Your task to perform on an android device: check google app version Image 0: 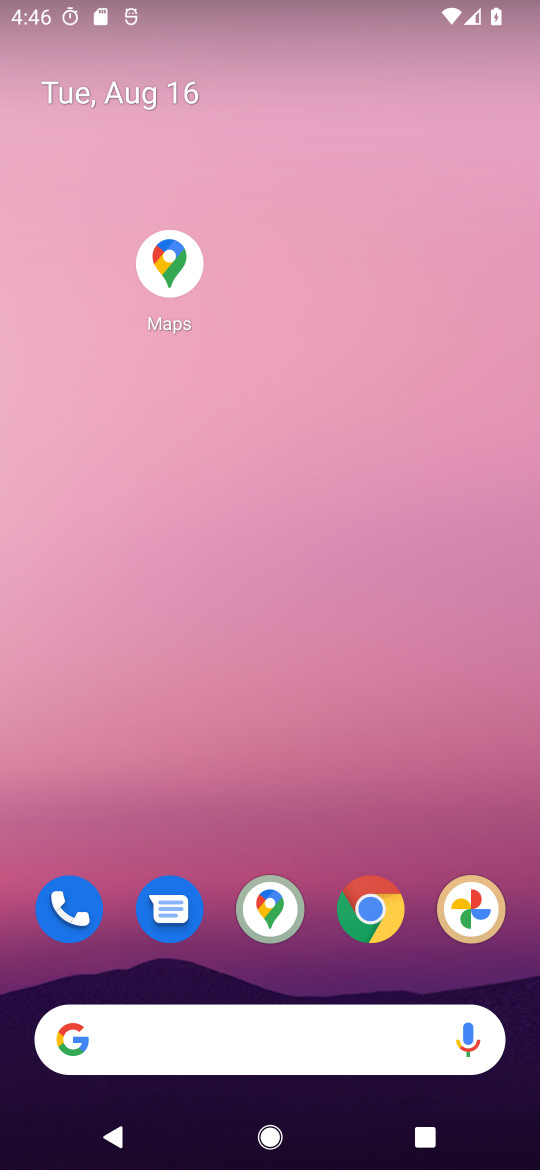
Step 0: drag from (237, 763) to (188, 81)
Your task to perform on an android device: check google app version Image 1: 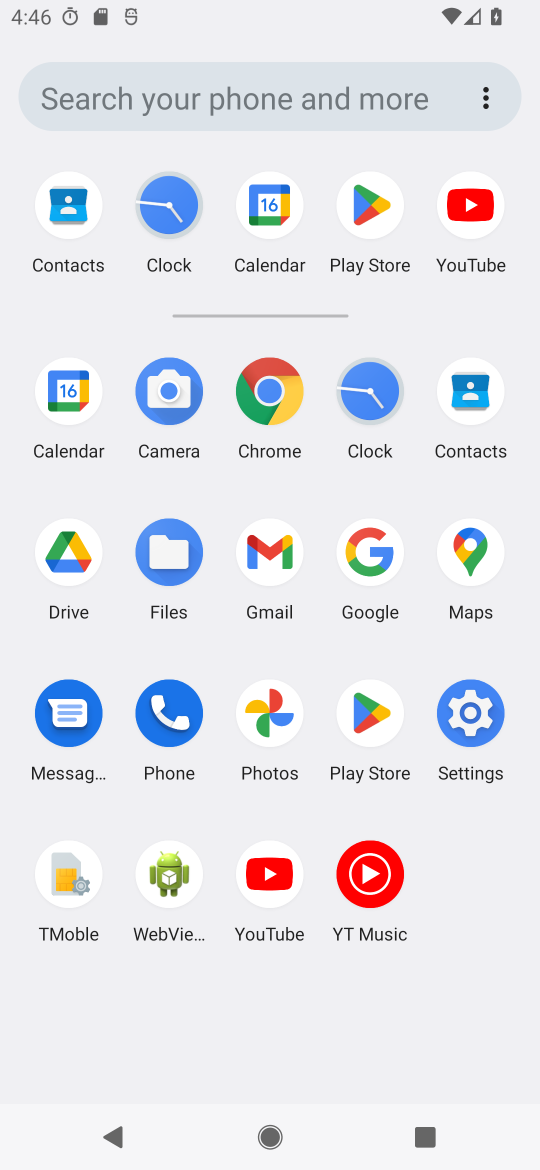
Step 1: click (377, 586)
Your task to perform on an android device: check google app version Image 2: 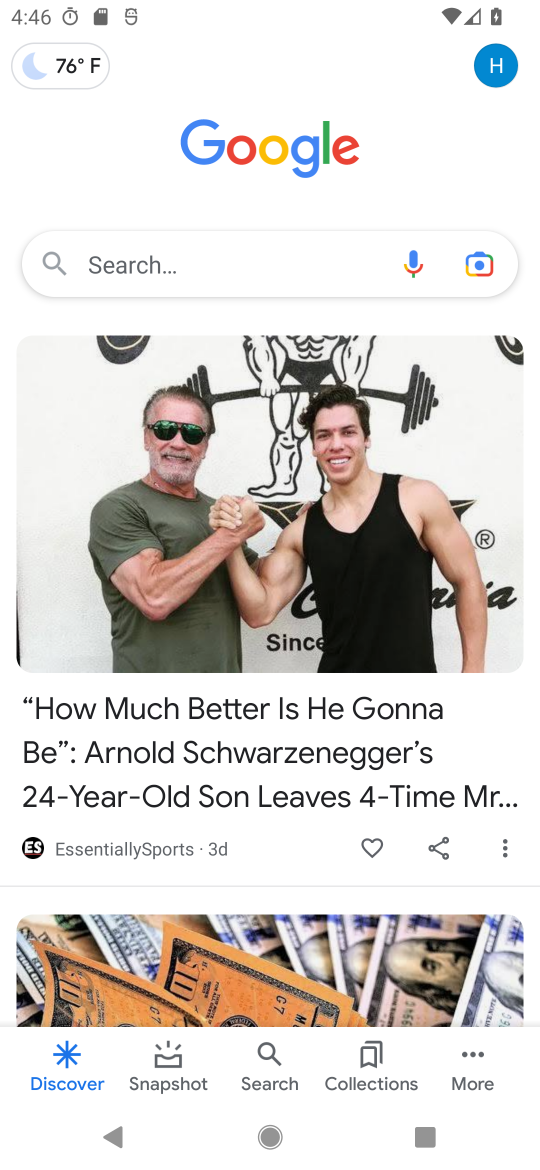
Step 2: click (491, 82)
Your task to perform on an android device: check google app version Image 3: 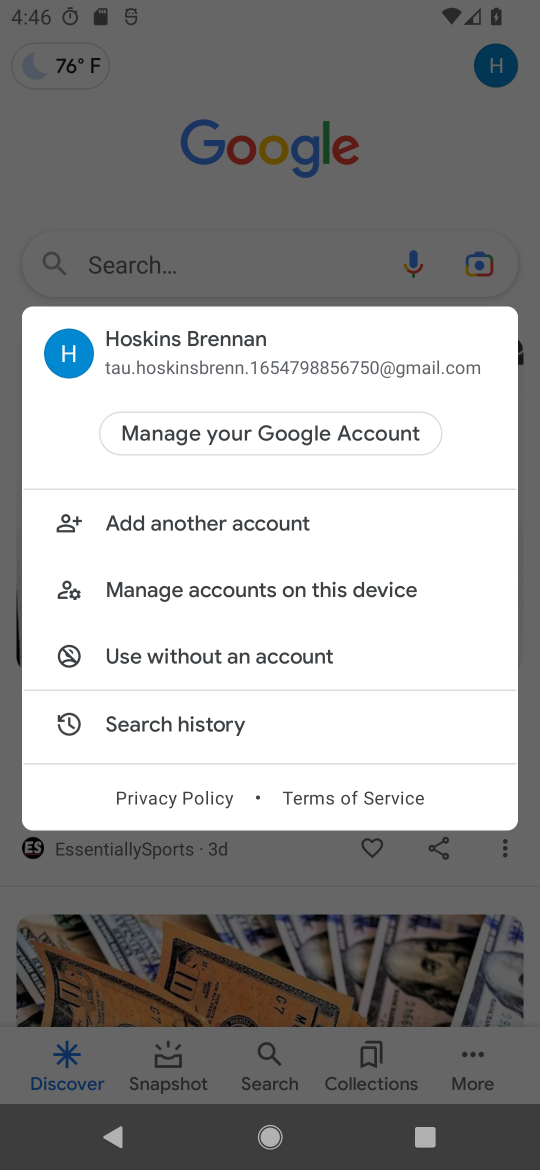
Step 3: click (270, 99)
Your task to perform on an android device: check google app version Image 4: 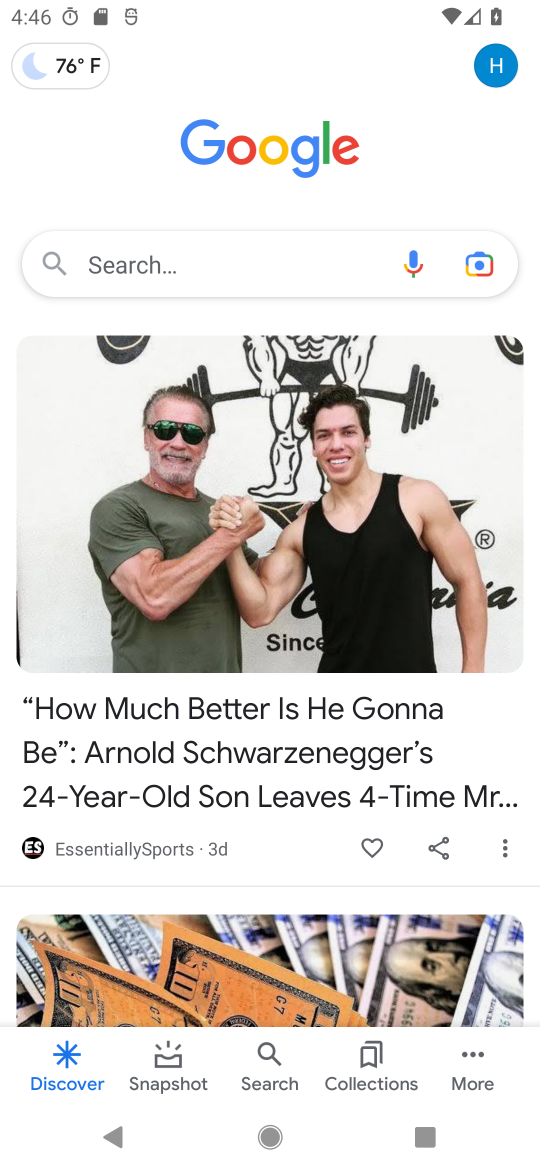
Step 4: click (474, 1059)
Your task to perform on an android device: check google app version Image 5: 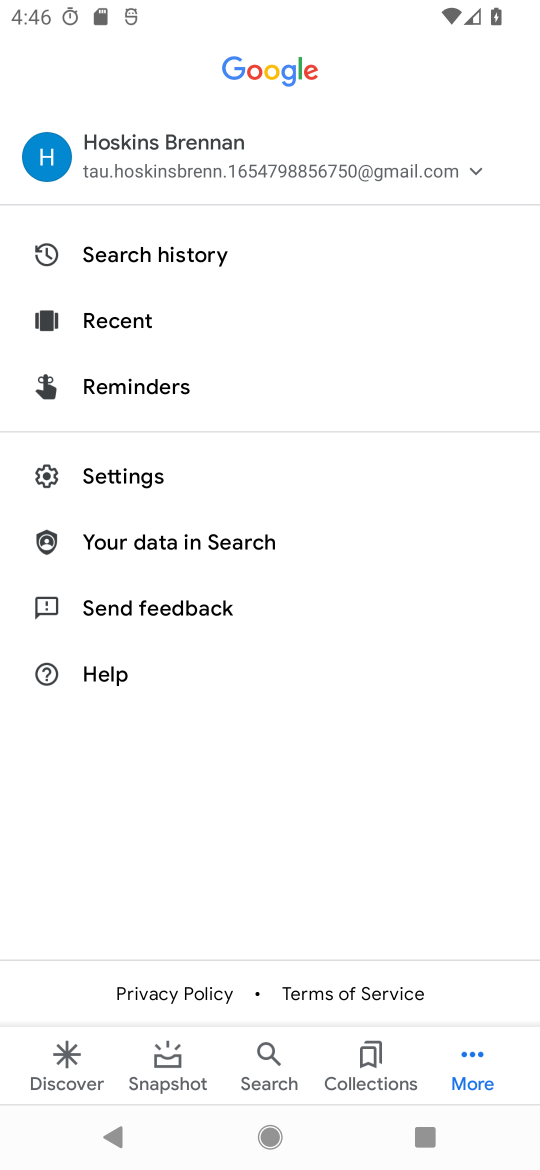
Step 5: click (128, 473)
Your task to perform on an android device: check google app version Image 6: 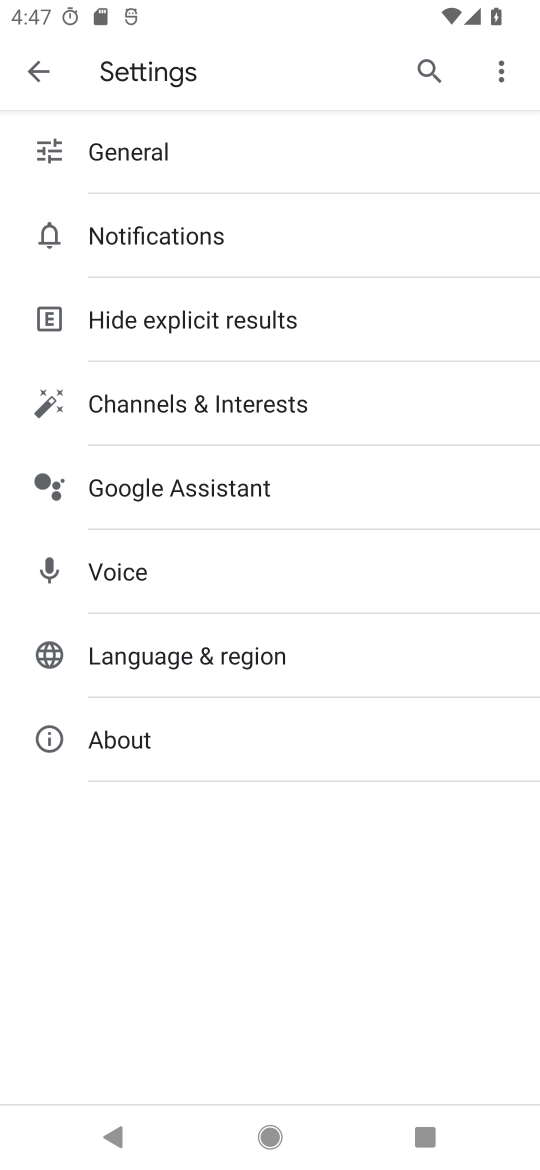
Step 6: click (119, 730)
Your task to perform on an android device: check google app version Image 7: 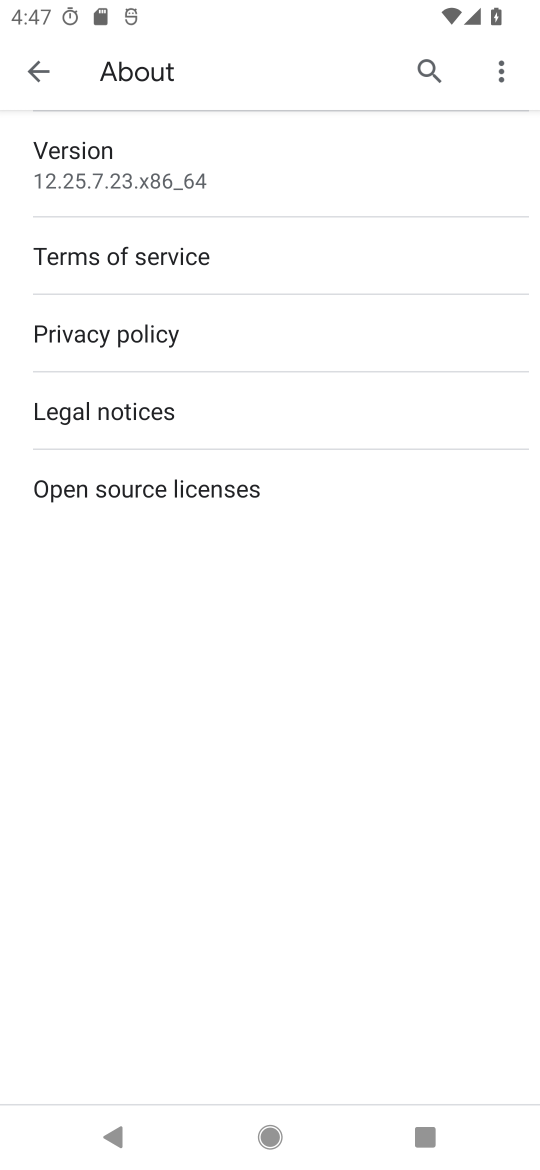
Step 7: task complete